Your task to perform on an android device: Show me recent news Image 0: 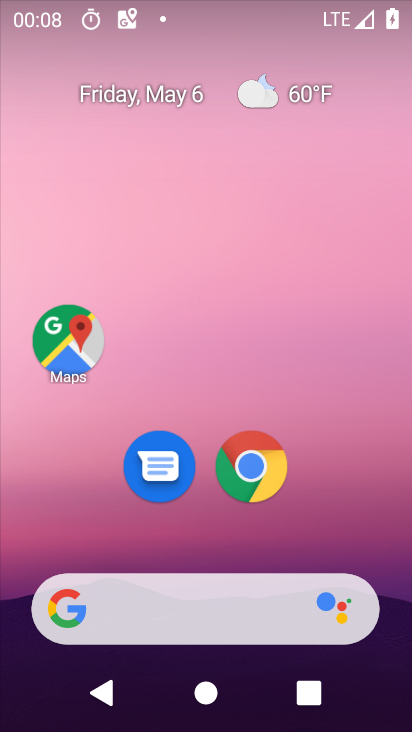
Step 0: drag from (230, 565) to (269, 94)
Your task to perform on an android device: Show me recent news Image 1: 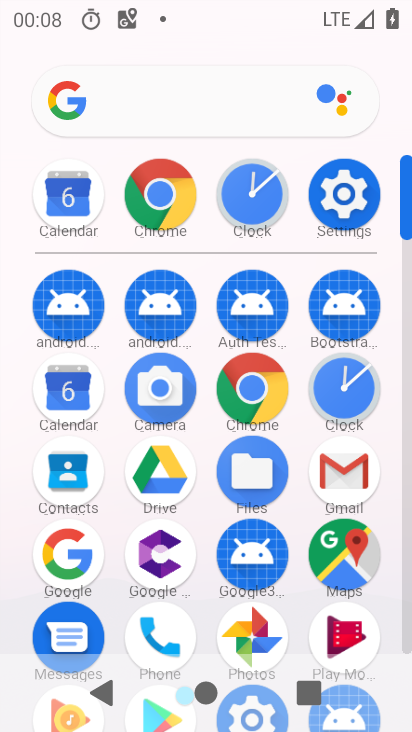
Step 1: click (64, 559)
Your task to perform on an android device: Show me recent news Image 2: 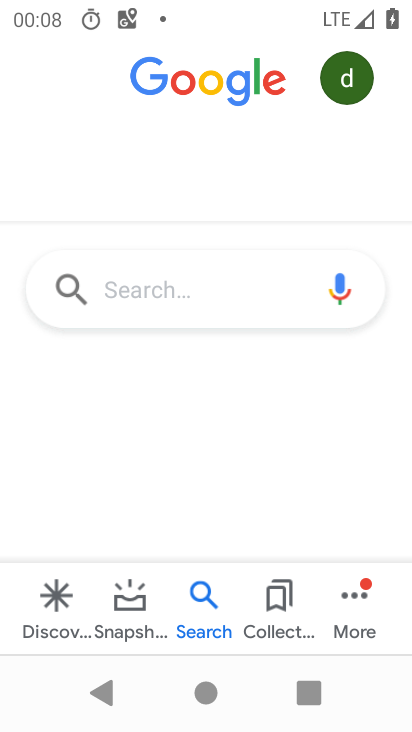
Step 2: click (183, 296)
Your task to perform on an android device: Show me recent news Image 3: 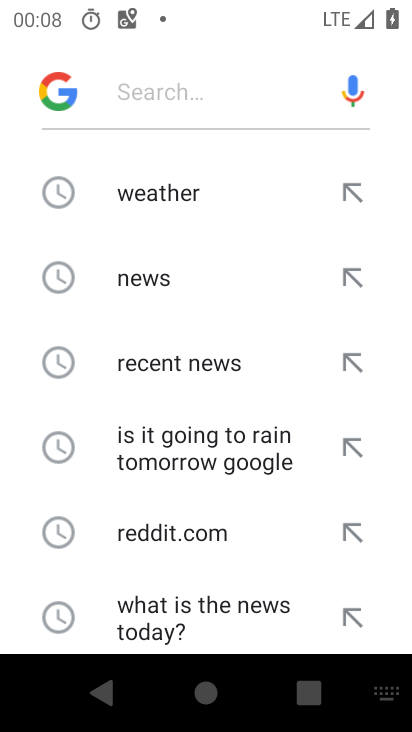
Step 3: click (209, 373)
Your task to perform on an android device: Show me recent news Image 4: 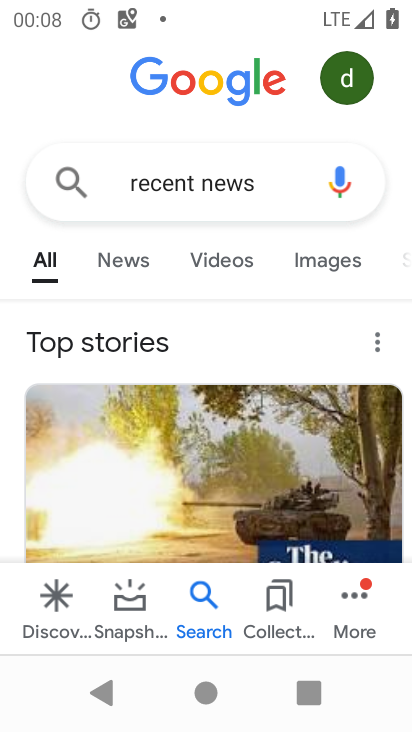
Step 4: task complete